Your task to perform on an android device: Go to sound settings Image 0: 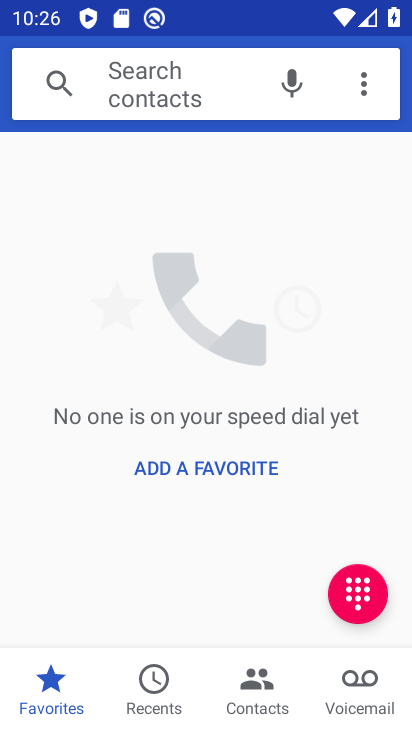
Step 0: press back button
Your task to perform on an android device: Go to sound settings Image 1: 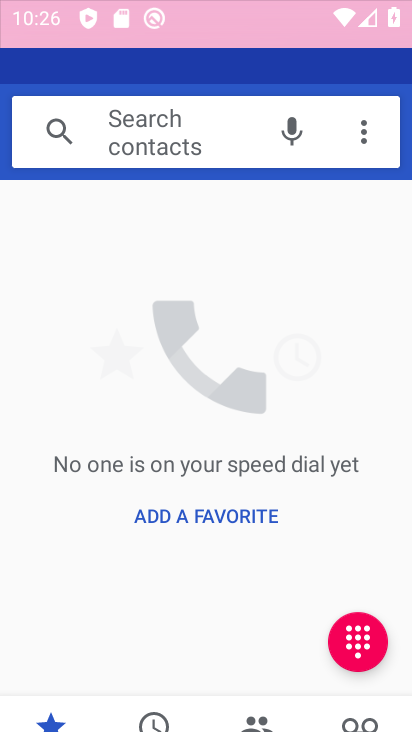
Step 1: press back button
Your task to perform on an android device: Go to sound settings Image 2: 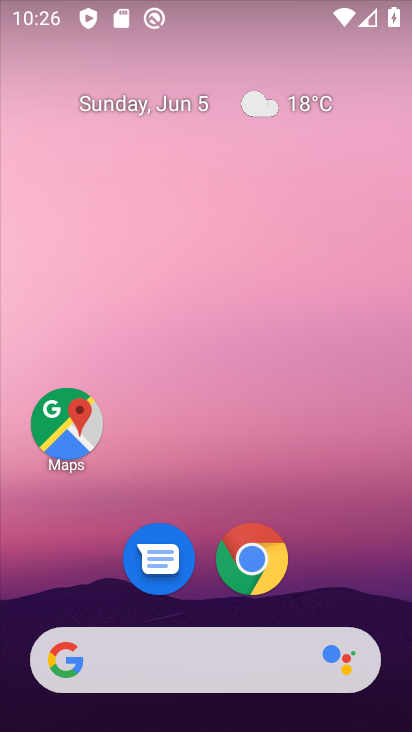
Step 2: press home button
Your task to perform on an android device: Go to sound settings Image 3: 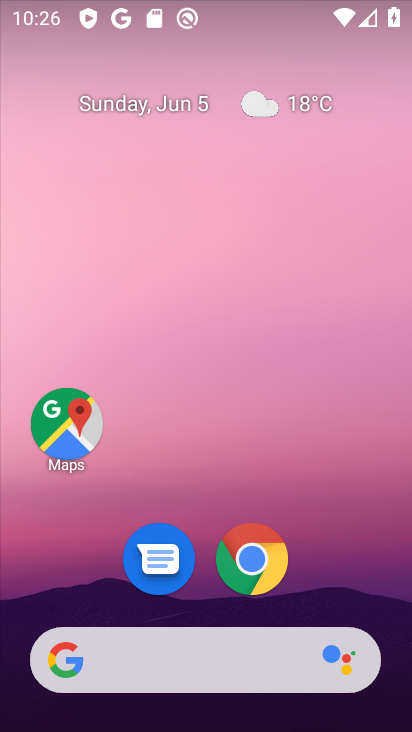
Step 3: click (162, 61)
Your task to perform on an android device: Go to sound settings Image 4: 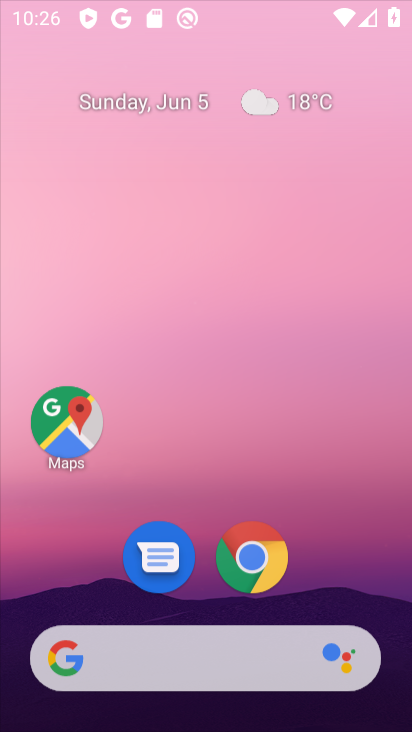
Step 4: drag from (146, 296) to (111, 59)
Your task to perform on an android device: Go to sound settings Image 5: 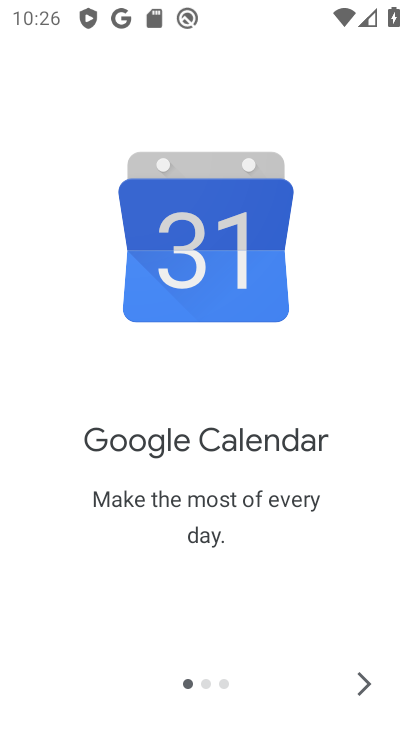
Step 5: press back button
Your task to perform on an android device: Go to sound settings Image 6: 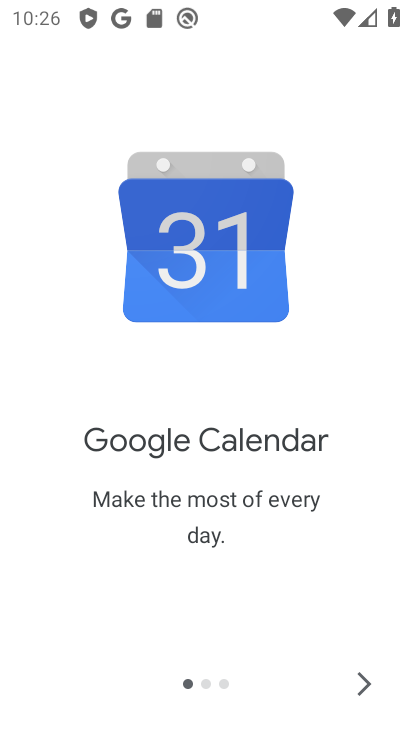
Step 6: press back button
Your task to perform on an android device: Go to sound settings Image 7: 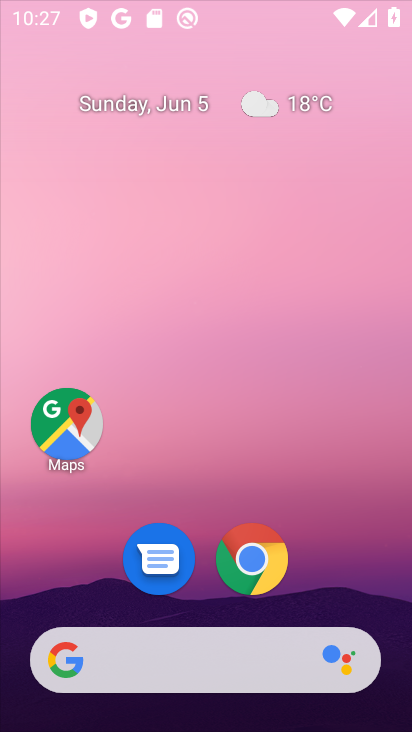
Step 7: press back button
Your task to perform on an android device: Go to sound settings Image 8: 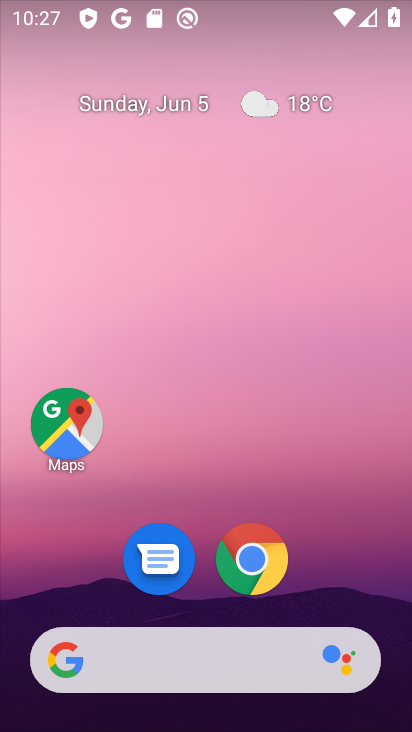
Step 8: press back button
Your task to perform on an android device: Go to sound settings Image 9: 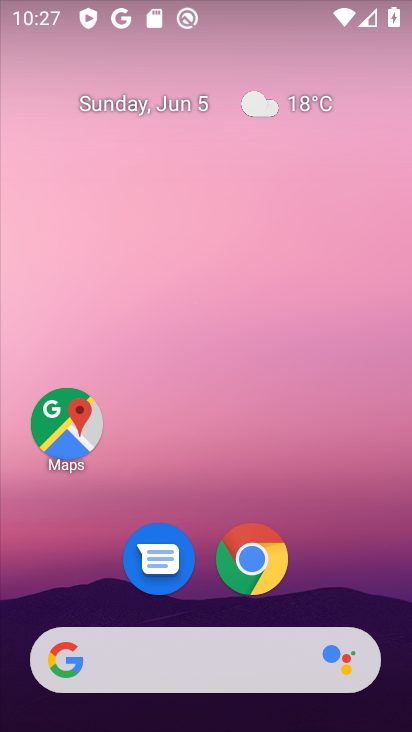
Step 9: drag from (255, 679) to (137, 63)
Your task to perform on an android device: Go to sound settings Image 10: 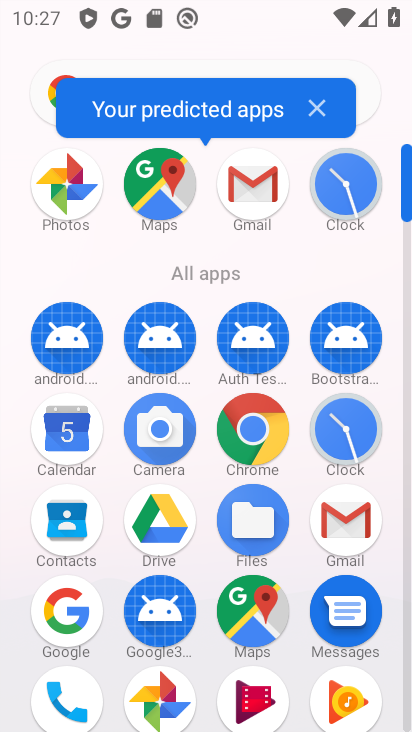
Step 10: drag from (207, 577) to (212, 271)
Your task to perform on an android device: Go to sound settings Image 11: 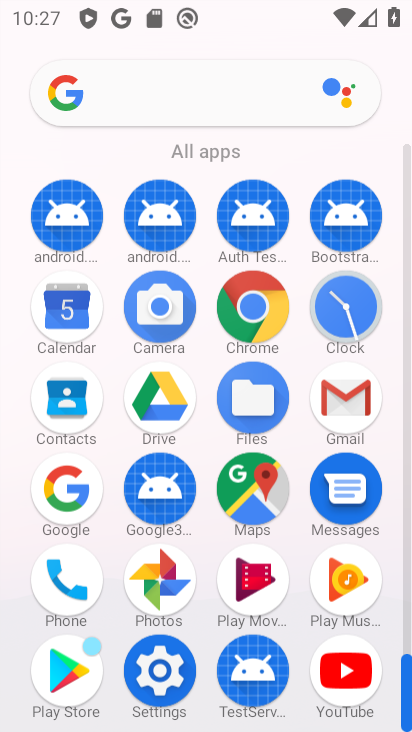
Step 11: drag from (205, 530) to (203, 226)
Your task to perform on an android device: Go to sound settings Image 12: 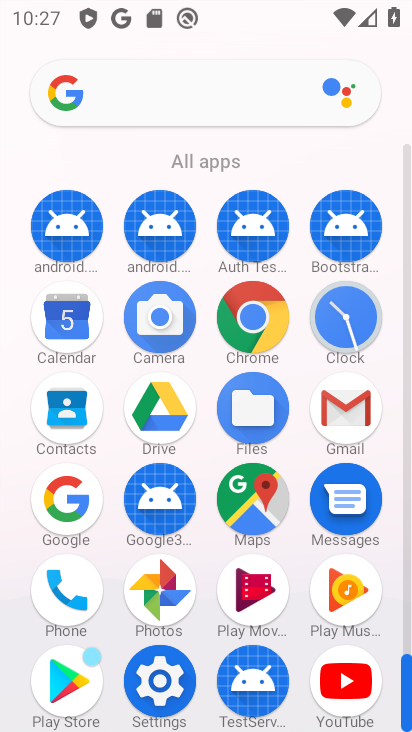
Step 12: click (159, 676)
Your task to perform on an android device: Go to sound settings Image 13: 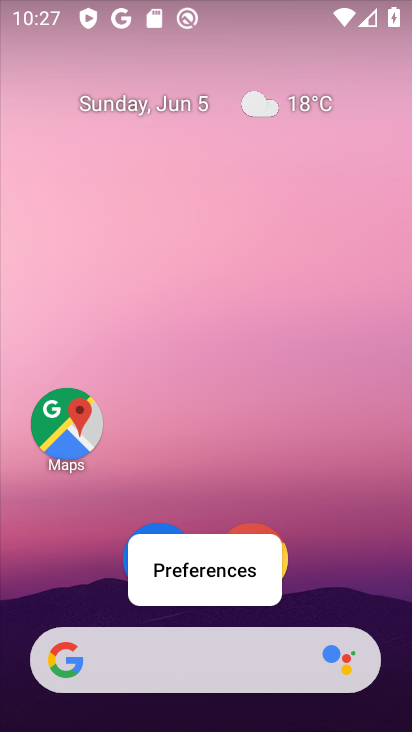
Step 13: drag from (339, 568) to (148, 7)
Your task to perform on an android device: Go to sound settings Image 14: 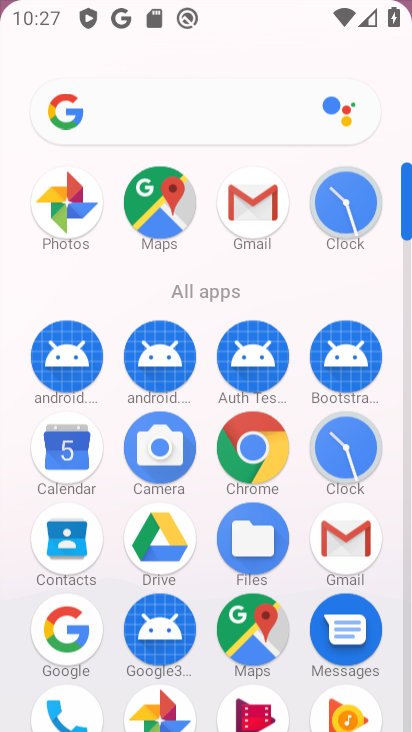
Step 14: drag from (289, 357) to (190, 80)
Your task to perform on an android device: Go to sound settings Image 15: 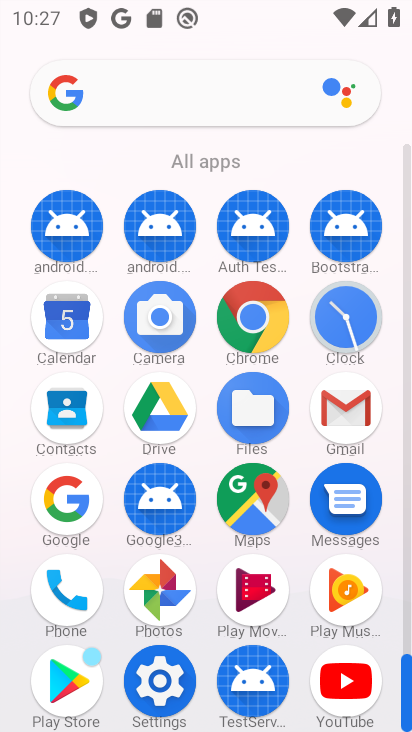
Step 15: drag from (192, 634) to (128, 226)
Your task to perform on an android device: Go to sound settings Image 16: 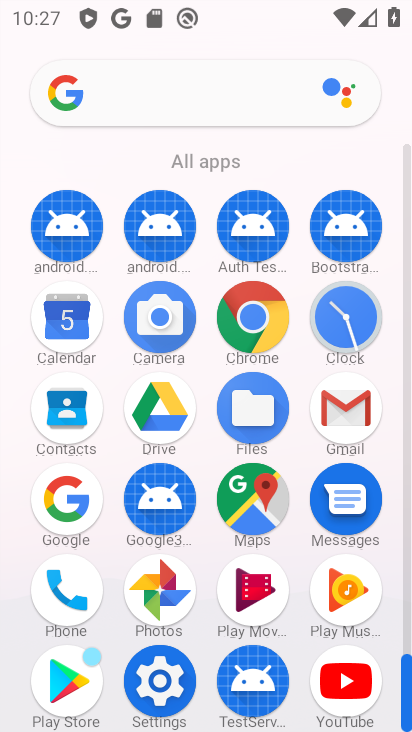
Step 16: click (155, 674)
Your task to perform on an android device: Go to sound settings Image 17: 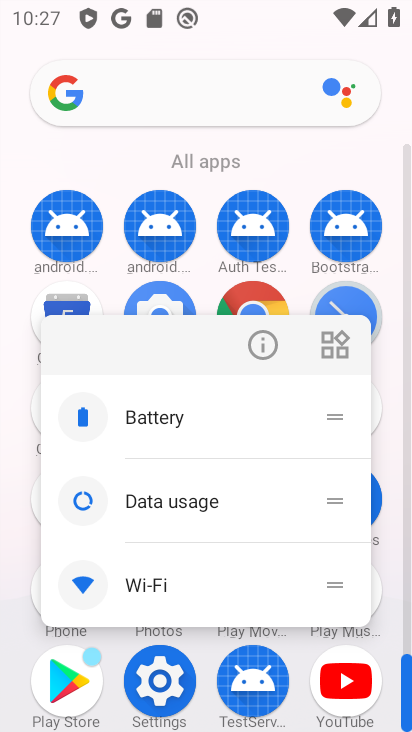
Step 17: click (159, 666)
Your task to perform on an android device: Go to sound settings Image 18: 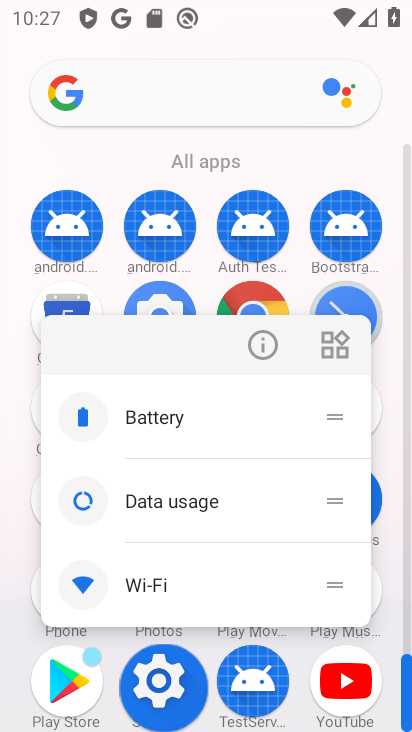
Step 18: click (153, 673)
Your task to perform on an android device: Go to sound settings Image 19: 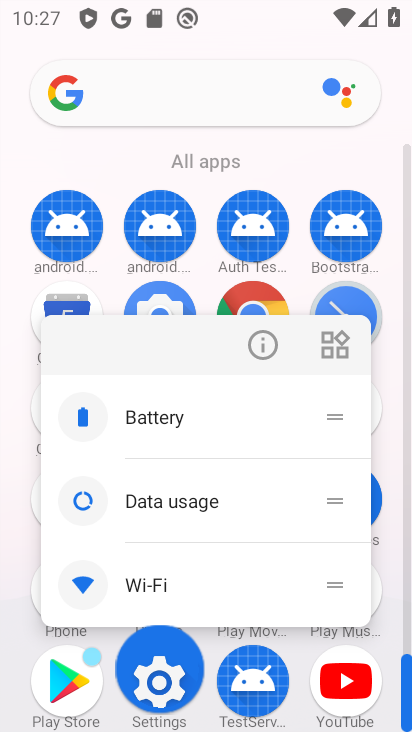
Step 19: click (155, 660)
Your task to perform on an android device: Go to sound settings Image 20: 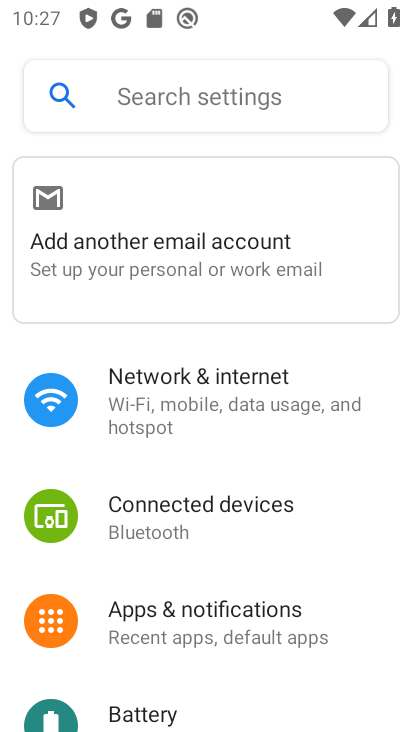
Step 20: drag from (190, 590) to (176, 94)
Your task to perform on an android device: Go to sound settings Image 21: 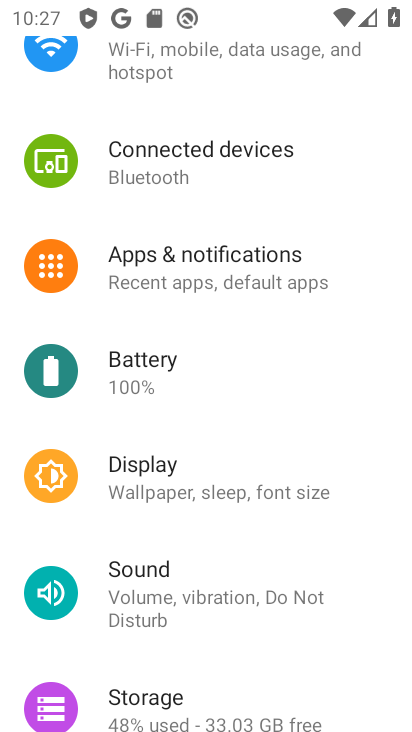
Step 21: drag from (181, 518) to (191, 185)
Your task to perform on an android device: Go to sound settings Image 22: 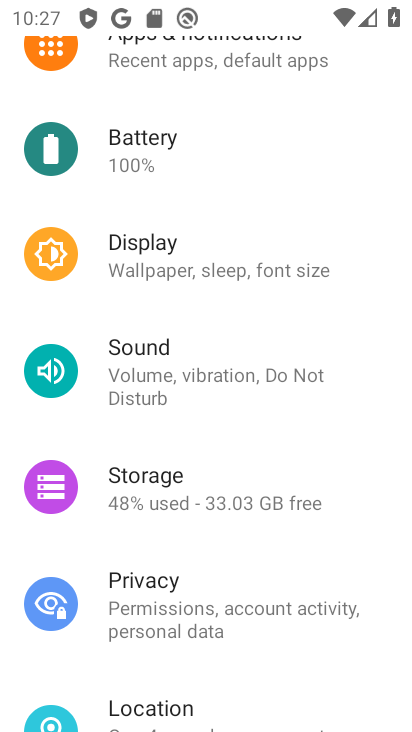
Step 22: click (117, 367)
Your task to perform on an android device: Go to sound settings Image 23: 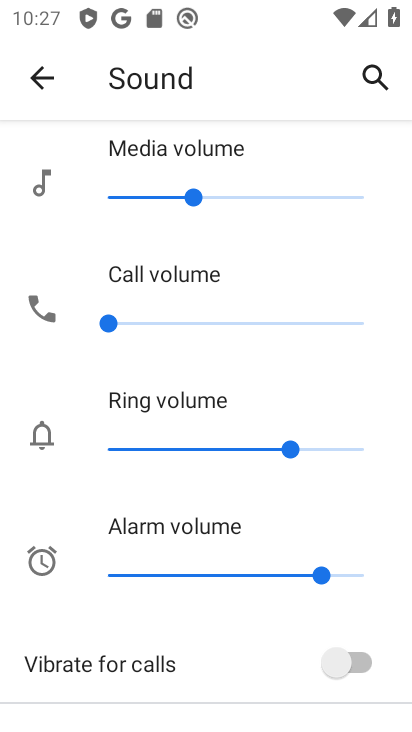
Step 23: task complete